Your task to perform on an android device: change your default location settings in chrome Image 0: 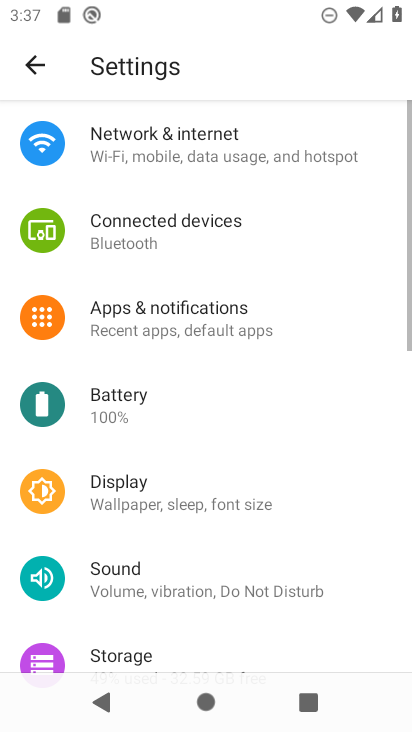
Step 0: press home button
Your task to perform on an android device: change your default location settings in chrome Image 1: 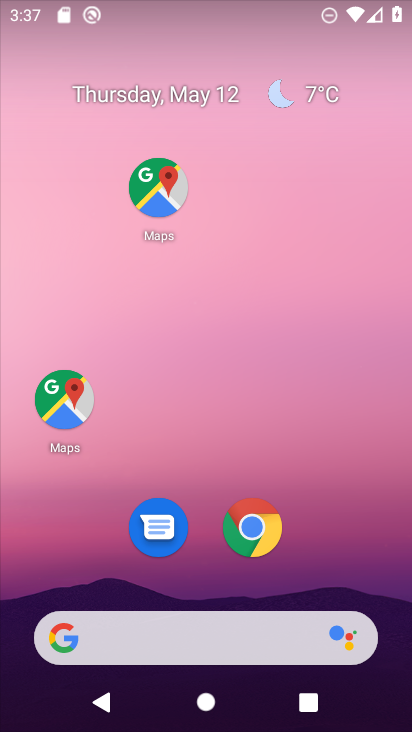
Step 1: click (246, 529)
Your task to perform on an android device: change your default location settings in chrome Image 2: 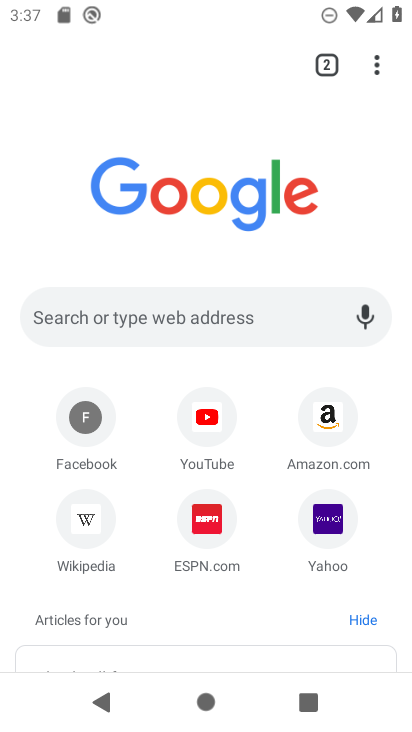
Step 2: click (375, 68)
Your task to perform on an android device: change your default location settings in chrome Image 3: 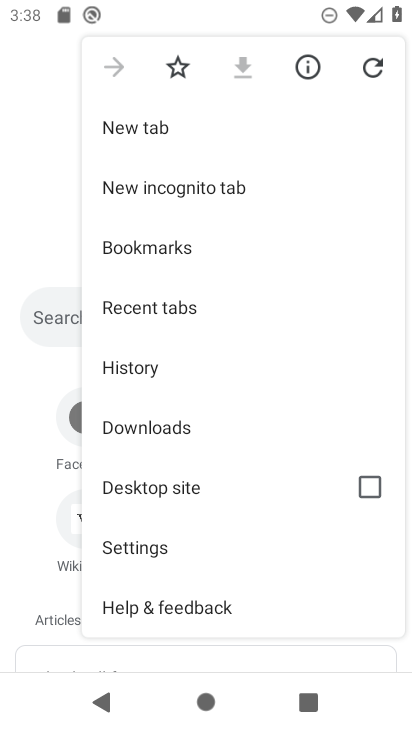
Step 3: click (153, 541)
Your task to perform on an android device: change your default location settings in chrome Image 4: 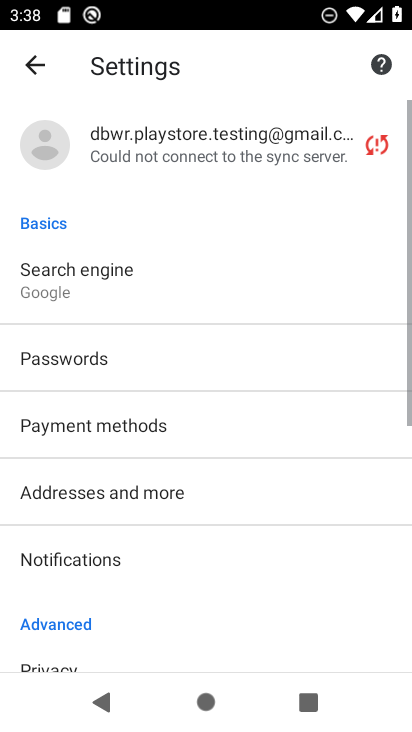
Step 4: drag from (155, 540) to (94, 214)
Your task to perform on an android device: change your default location settings in chrome Image 5: 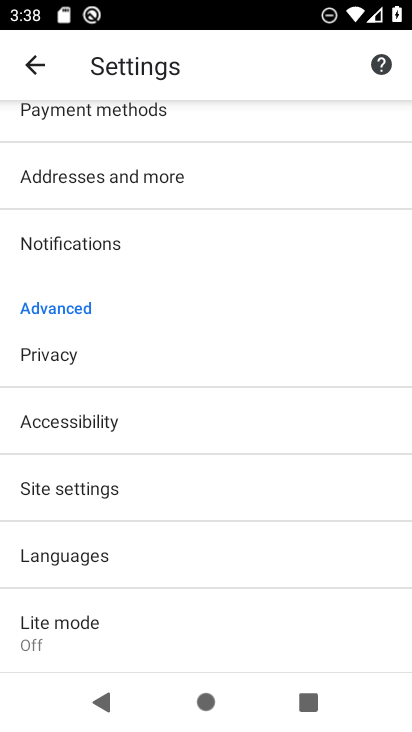
Step 5: drag from (95, 288) to (123, 604)
Your task to perform on an android device: change your default location settings in chrome Image 6: 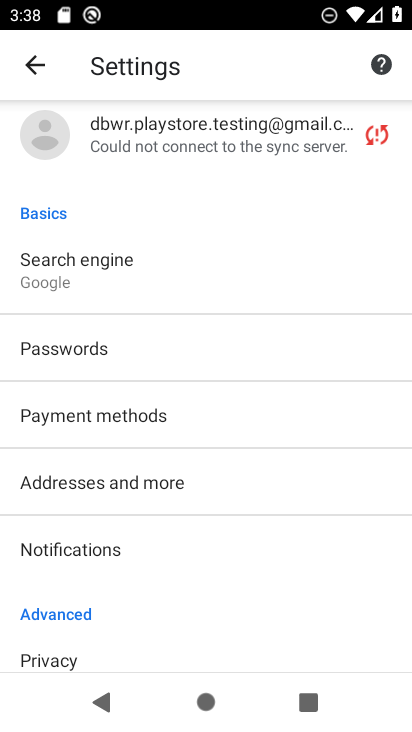
Step 6: drag from (128, 470) to (72, 18)
Your task to perform on an android device: change your default location settings in chrome Image 7: 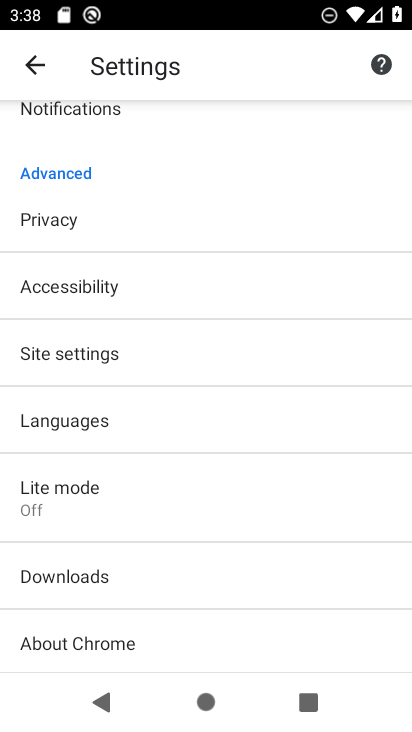
Step 7: click (72, 356)
Your task to perform on an android device: change your default location settings in chrome Image 8: 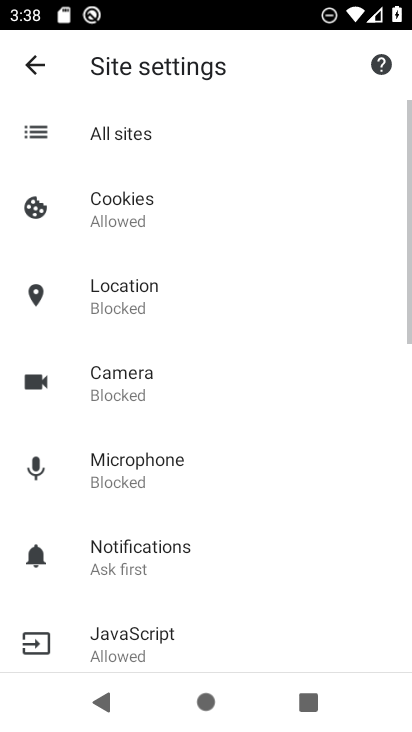
Step 8: click (109, 316)
Your task to perform on an android device: change your default location settings in chrome Image 9: 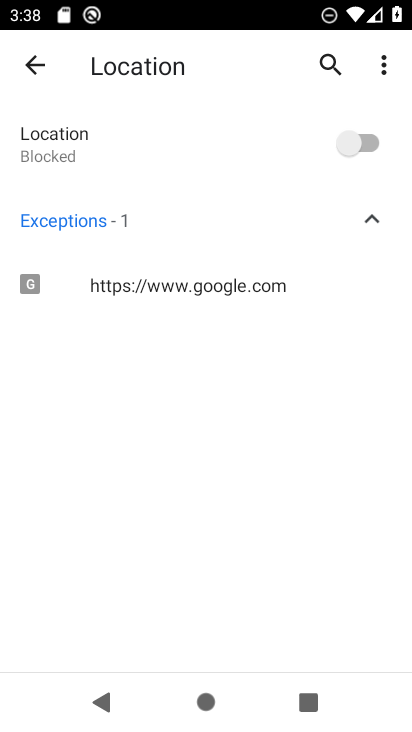
Step 9: click (344, 144)
Your task to perform on an android device: change your default location settings in chrome Image 10: 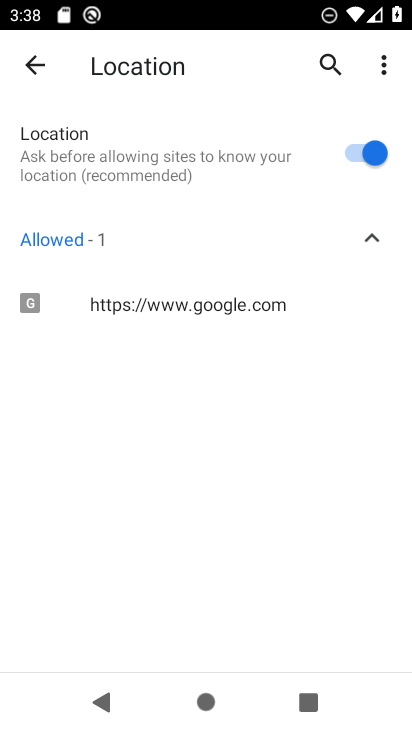
Step 10: task complete